Your task to perform on an android device: How do I get to the nearest grocery store? Image 0: 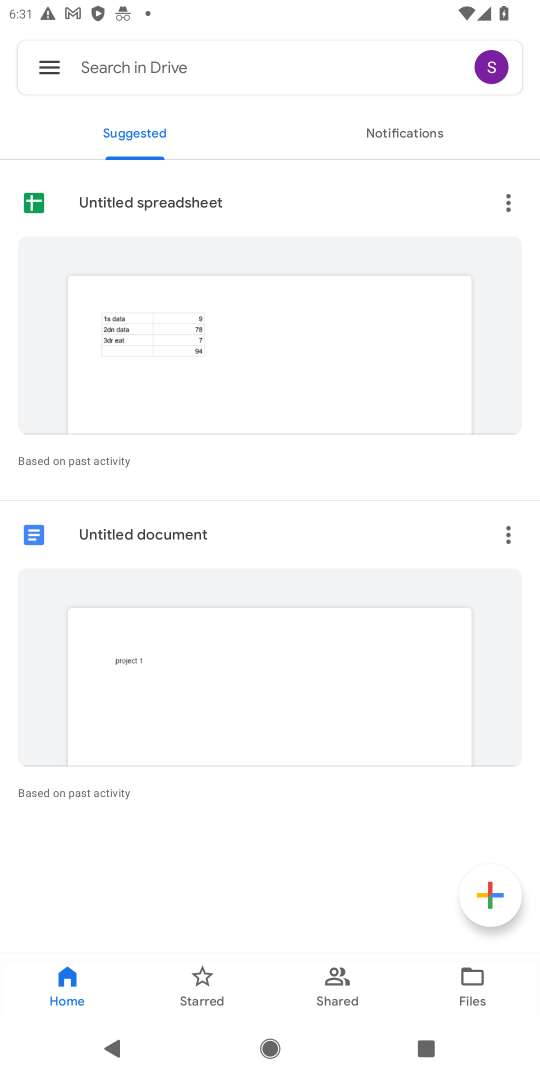
Step 0: press home button
Your task to perform on an android device: How do I get to the nearest grocery store? Image 1: 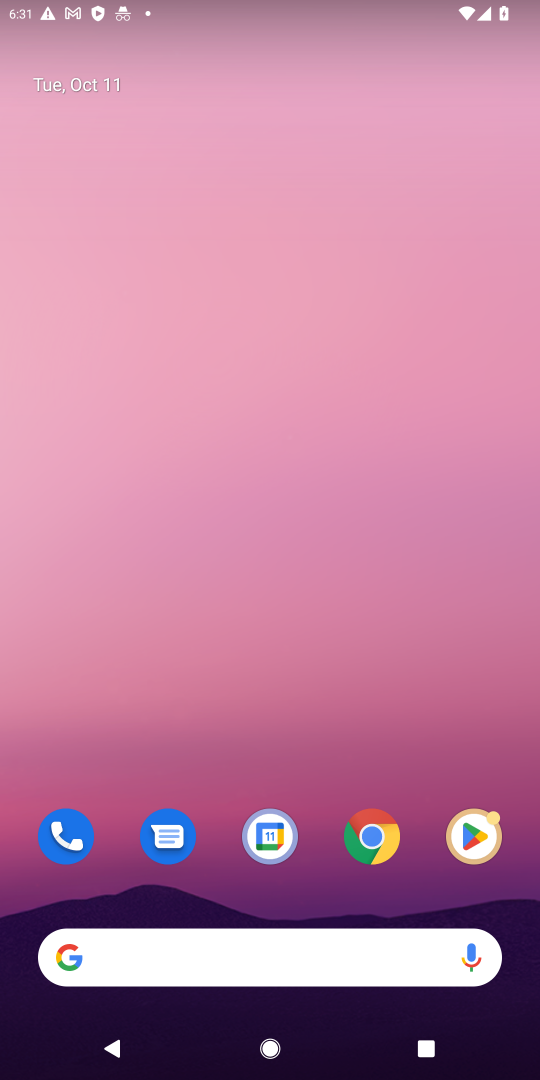
Step 1: click (376, 841)
Your task to perform on an android device: How do I get to the nearest grocery store? Image 2: 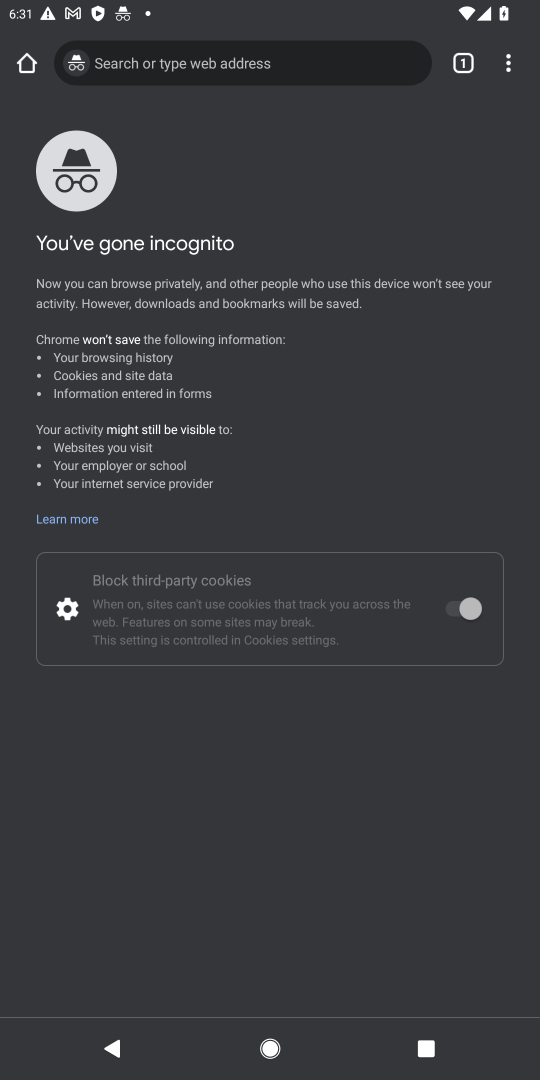
Step 2: click (457, 62)
Your task to perform on an android device: How do I get to the nearest grocery store? Image 3: 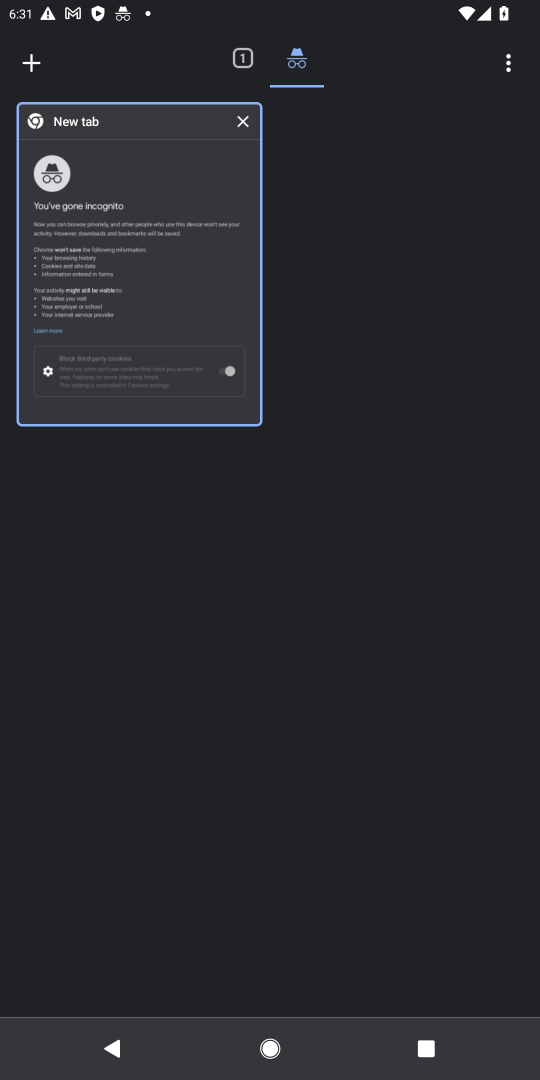
Step 3: click (238, 51)
Your task to perform on an android device: How do I get to the nearest grocery store? Image 4: 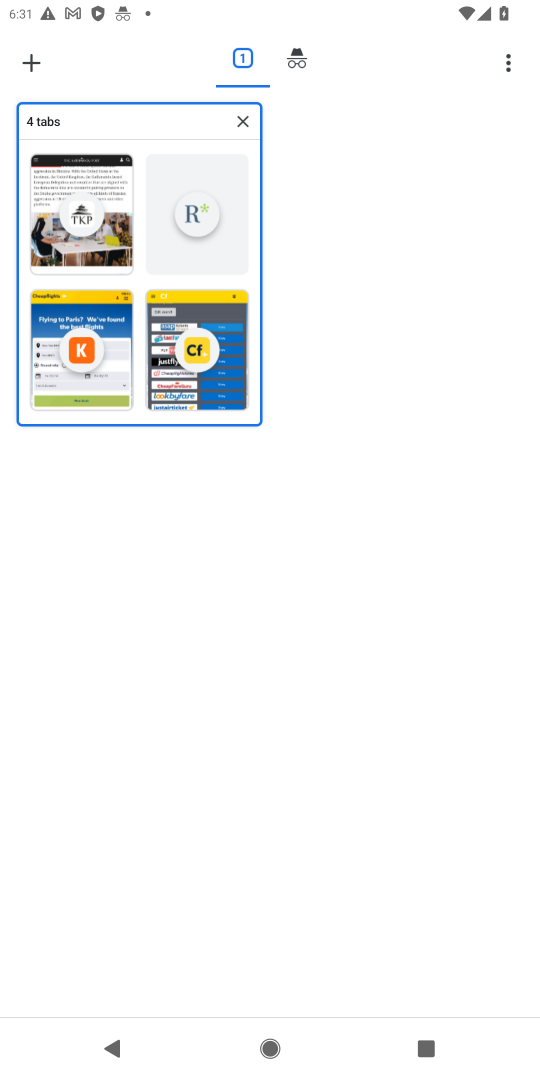
Step 4: click (122, 133)
Your task to perform on an android device: How do I get to the nearest grocery store? Image 5: 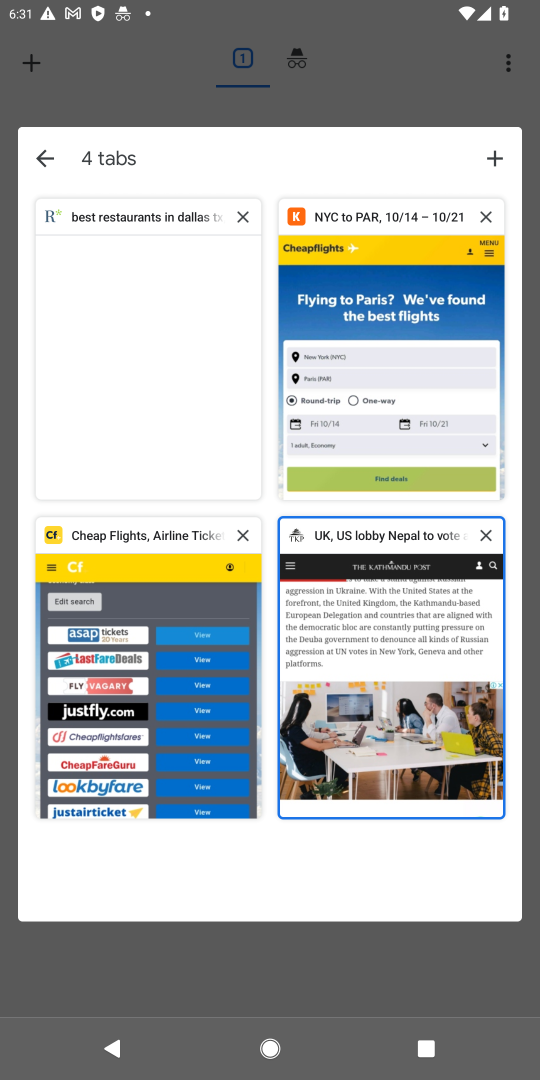
Step 5: click (408, 699)
Your task to perform on an android device: How do I get to the nearest grocery store? Image 6: 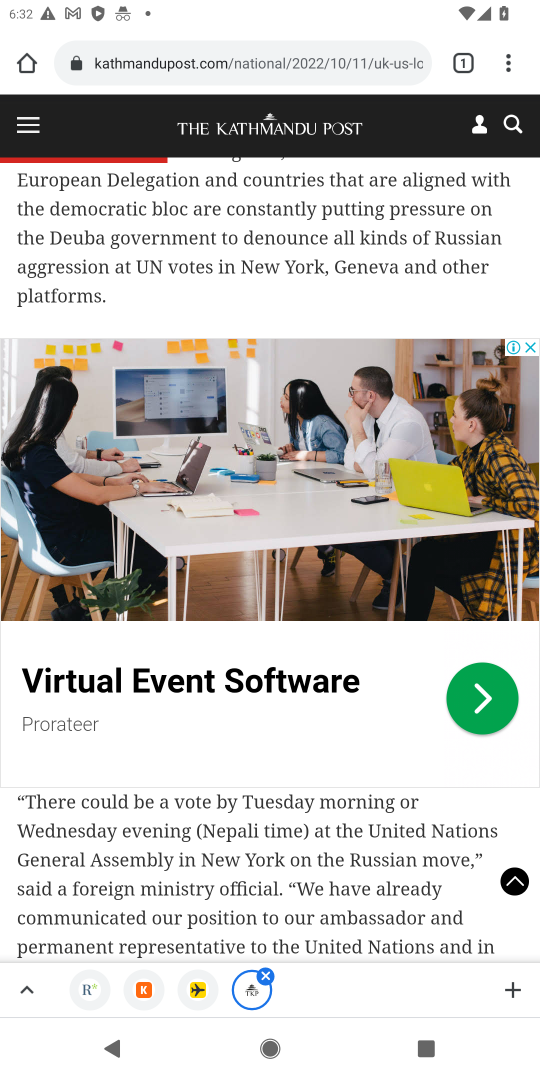
Step 6: click (215, 49)
Your task to perform on an android device: How do I get to the nearest grocery store? Image 7: 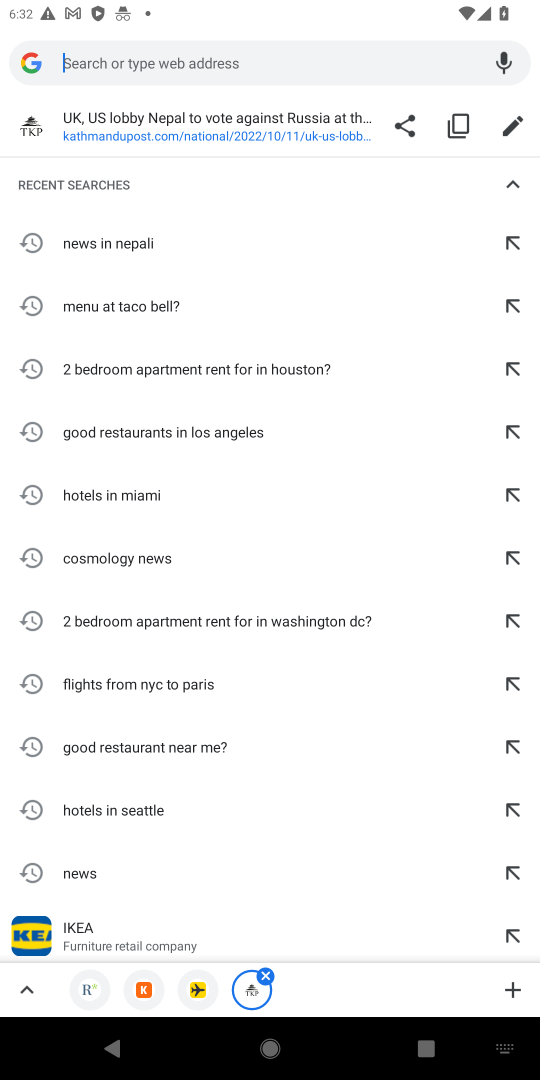
Step 7: type "nearest grocery store?"
Your task to perform on an android device: How do I get to the nearest grocery store? Image 8: 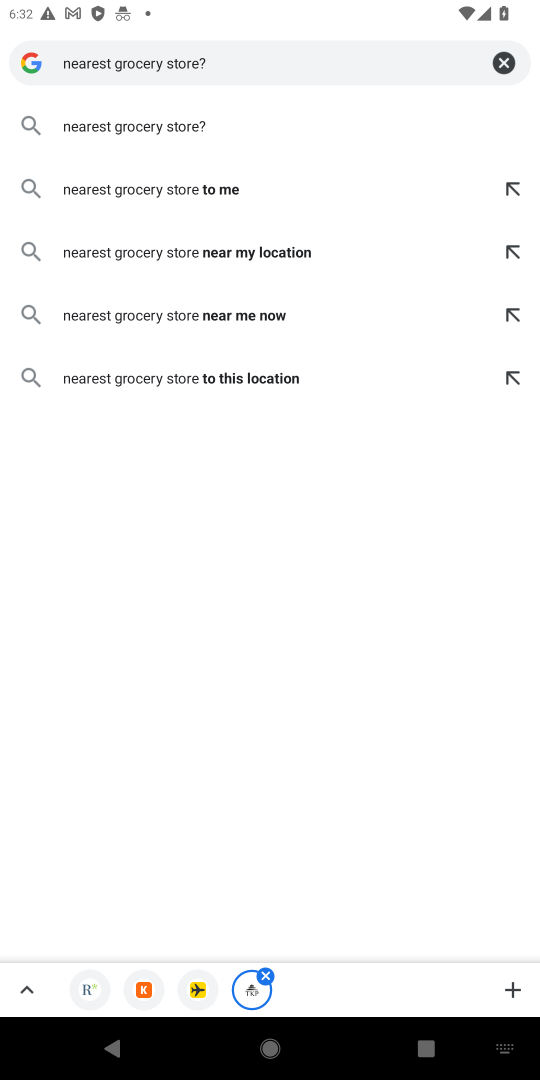
Step 8: click (155, 127)
Your task to perform on an android device: How do I get to the nearest grocery store? Image 9: 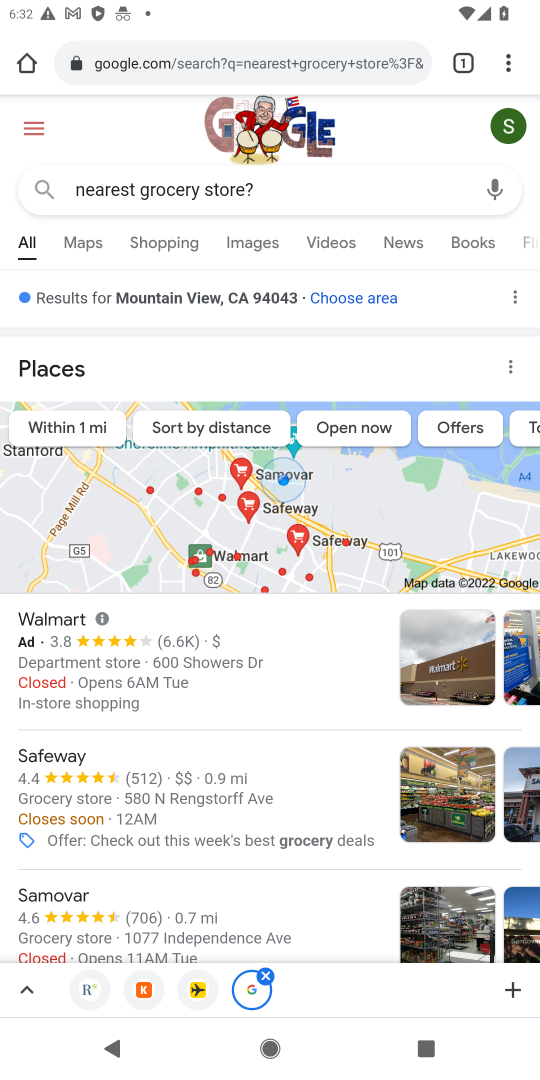
Step 9: drag from (239, 751) to (202, 242)
Your task to perform on an android device: How do I get to the nearest grocery store? Image 10: 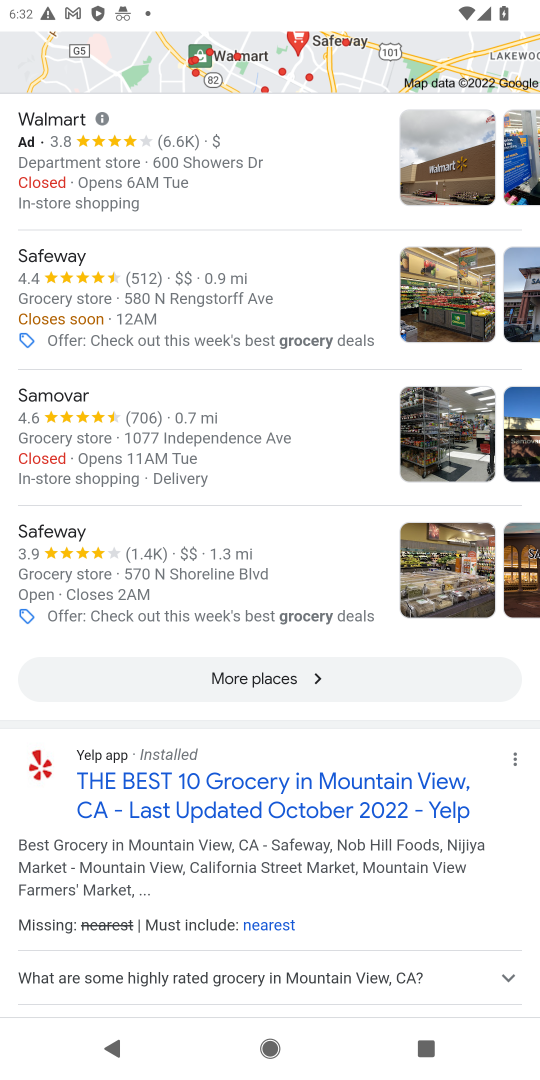
Step 10: click (169, 800)
Your task to perform on an android device: How do I get to the nearest grocery store? Image 11: 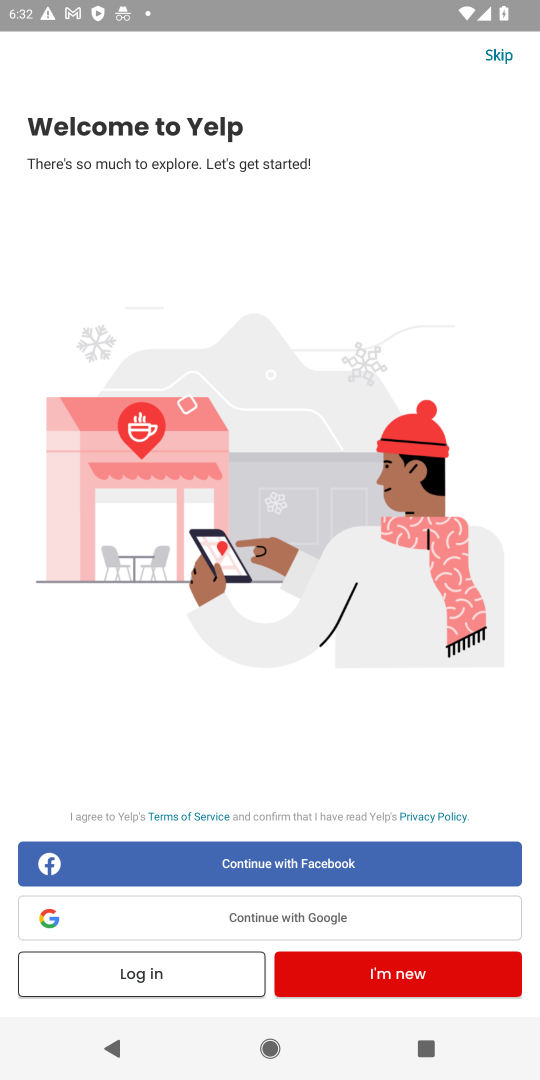
Step 11: click (490, 53)
Your task to perform on an android device: How do I get to the nearest grocery store? Image 12: 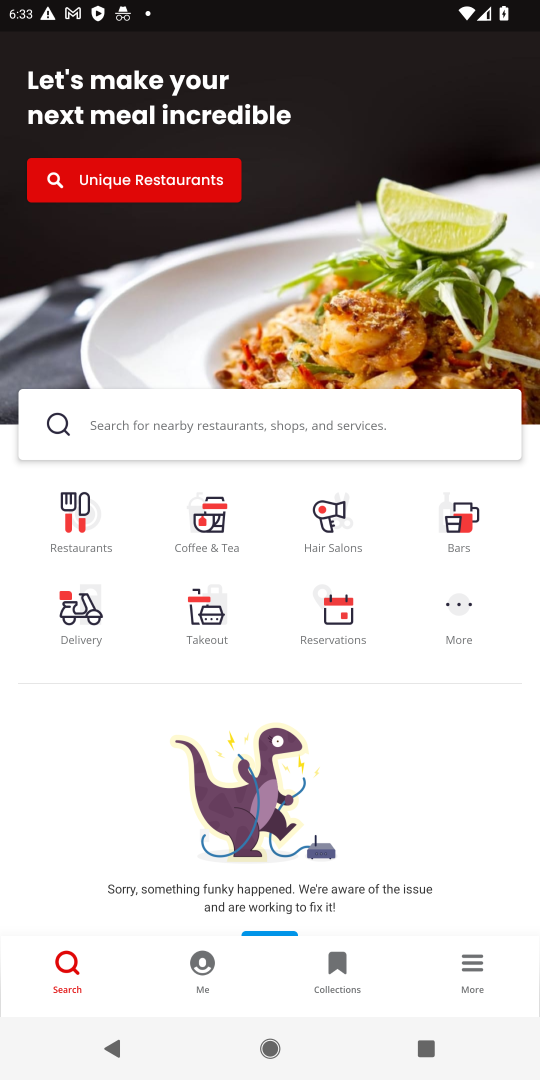
Step 12: drag from (275, 664) to (279, 185)
Your task to perform on an android device: How do I get to the nearest grocery store? Image 13: 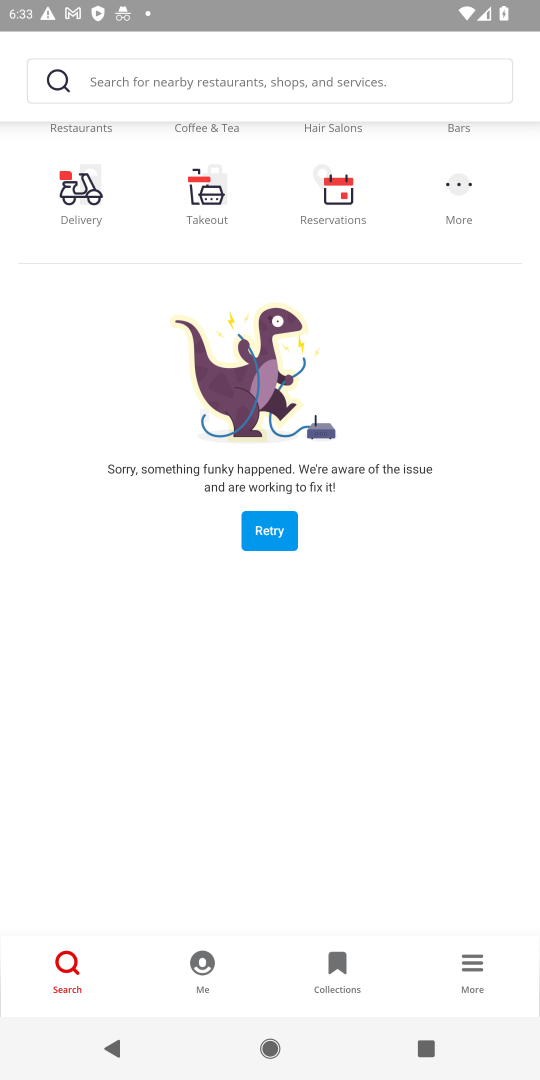
Step 13: click (266, 524)
Your task to perform on an android device: How do I get to the nearest grocery store? Image 14: 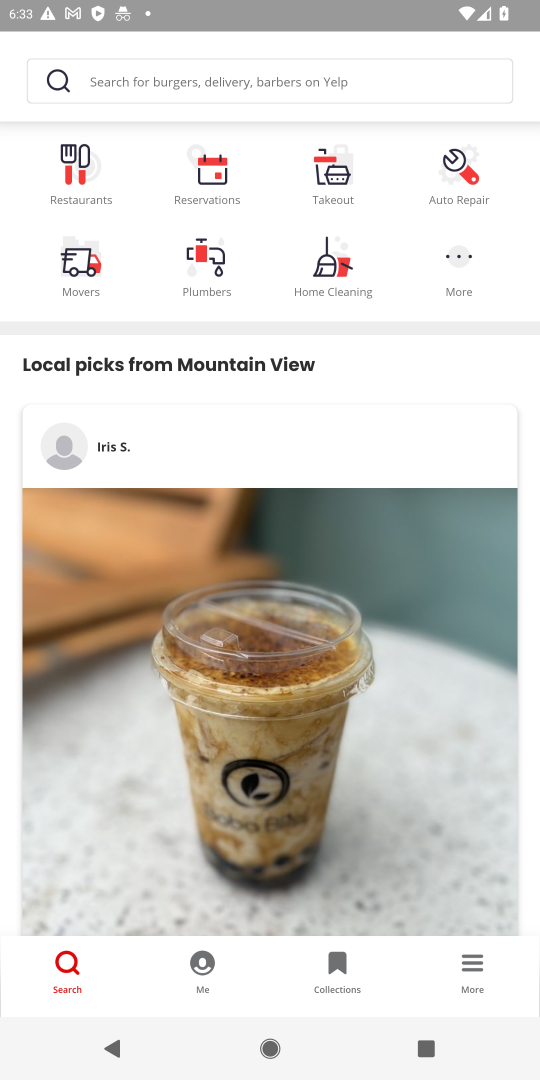
Step 14: task complete